Your task to perform on an android device: Go to eBay Image 0: 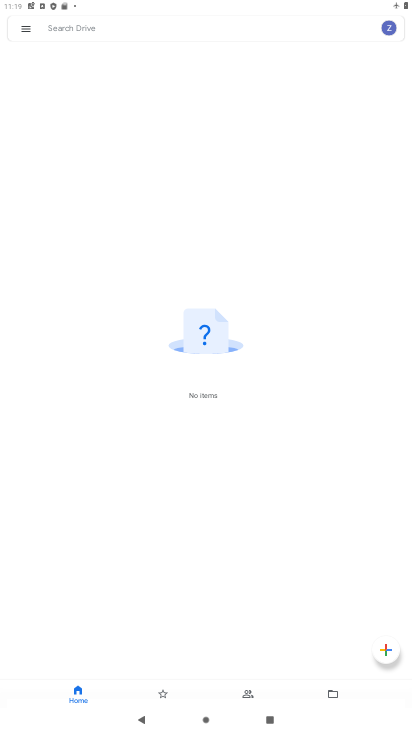
Step 0: press home button
Your task to perform on an android device: Go to eBay Image 1: 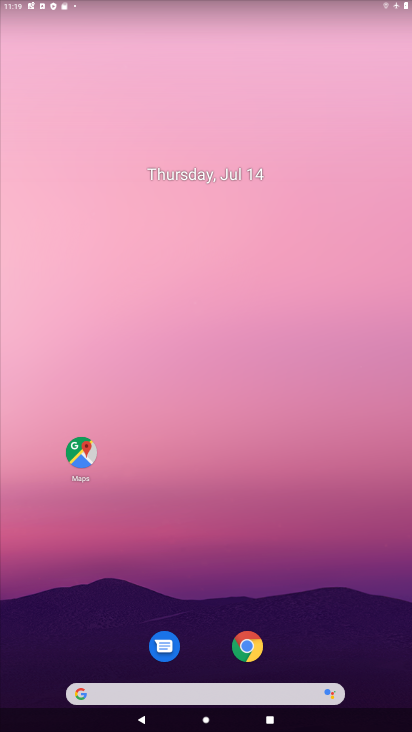
Step 1: click (253, 651)
Your task to perform on an android device: Go to eBay Image 2: 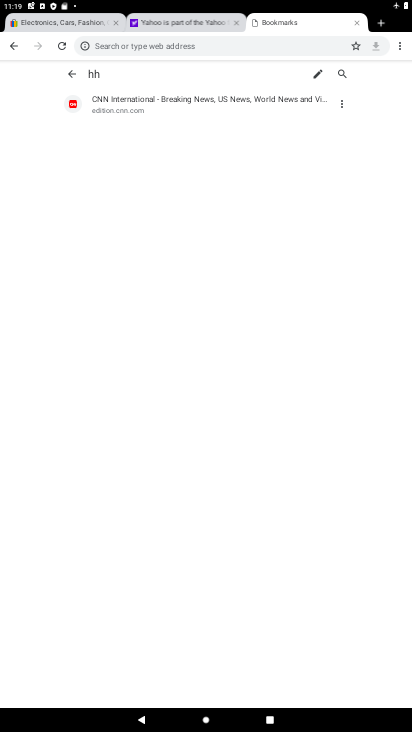
Step 2: click (373, 25)
Your task to perform on an android device: Go to eBay Image 3: 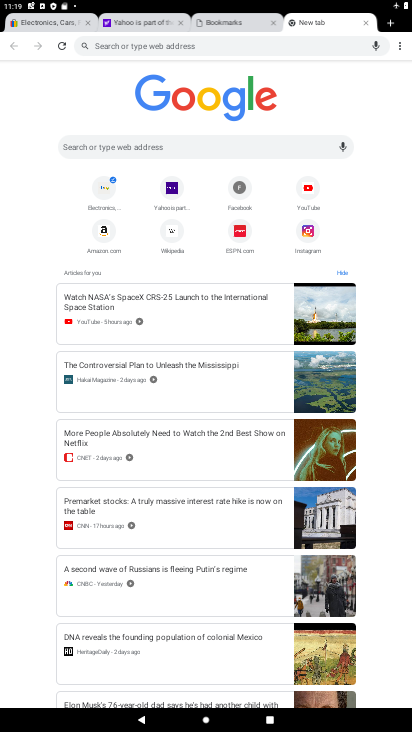
Step 3: click (178, 150)
Your task to perform on an android device: Go to eBay Image 4: 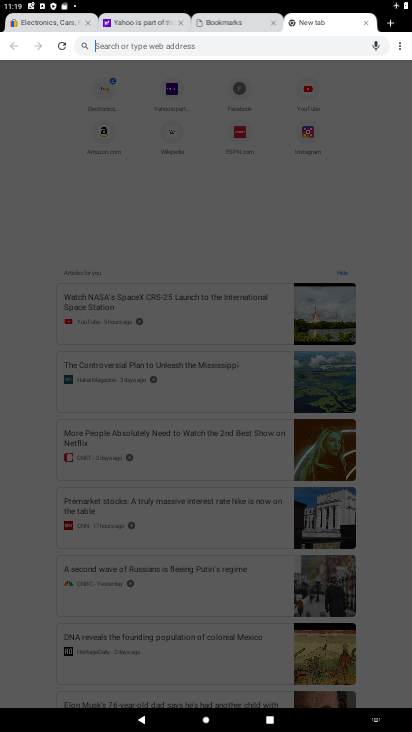
Step 4: type "eBay"
Your task to perform on an android device: Go to eBay Image 5: 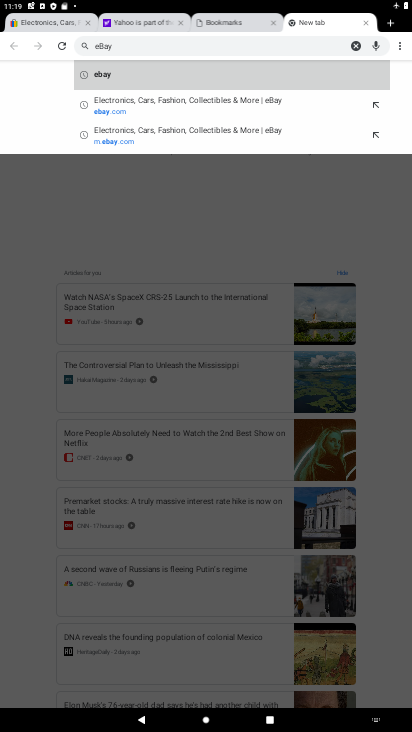
Step 5: click (107, 75)
Your task to perform on an android device: Go to eBay Image 6: 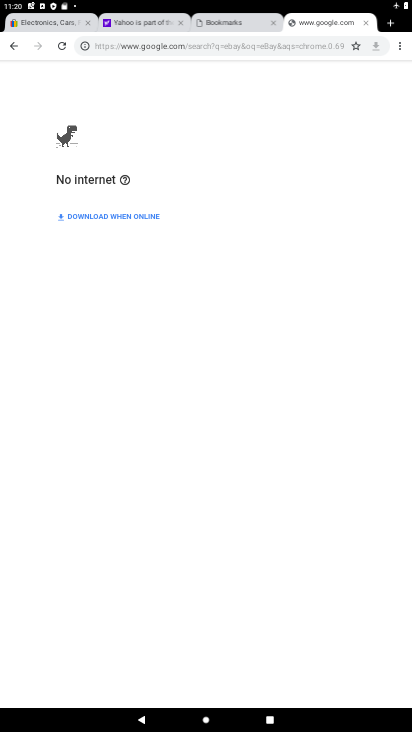
Step 6: task complete